Your task to perform on an android device: find which apps use the phone's location Image 0: 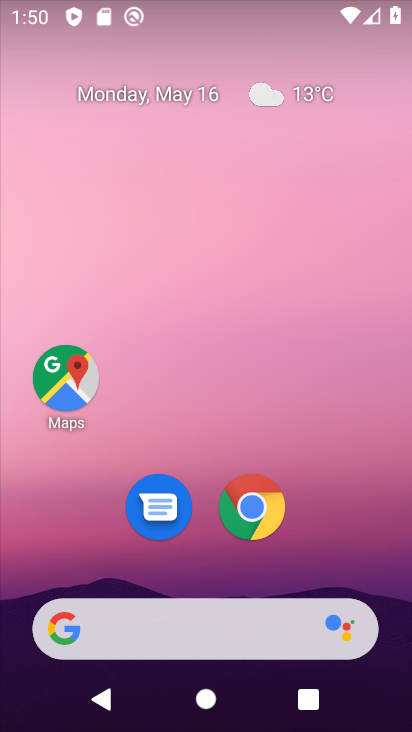
Step 0: drag from (165, 388) to (239, 103)
Your task to perform on an android device: find which apps use the phone's location Image 1: 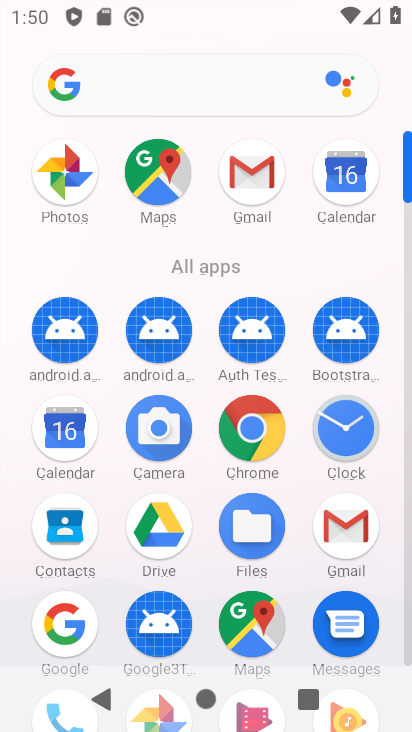
Step 1: drag from (198, 628) to (249, 335)
Your task to perform on an android device: find which apps use the phone's location Image 2: 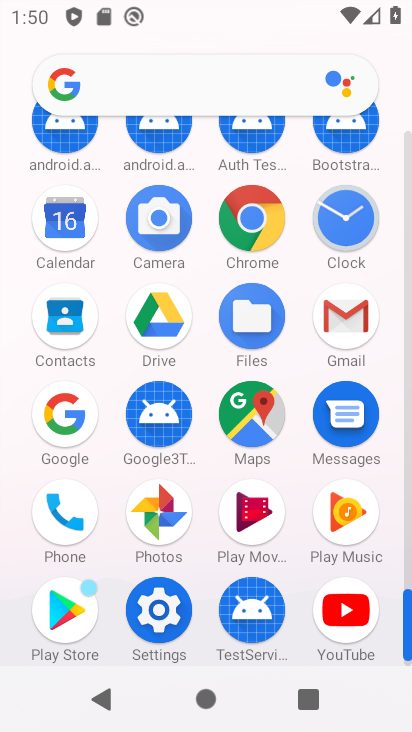
Step 2: click (170, 622)
Your task to perform on an android device: find which apps use the phone's location Image 3: 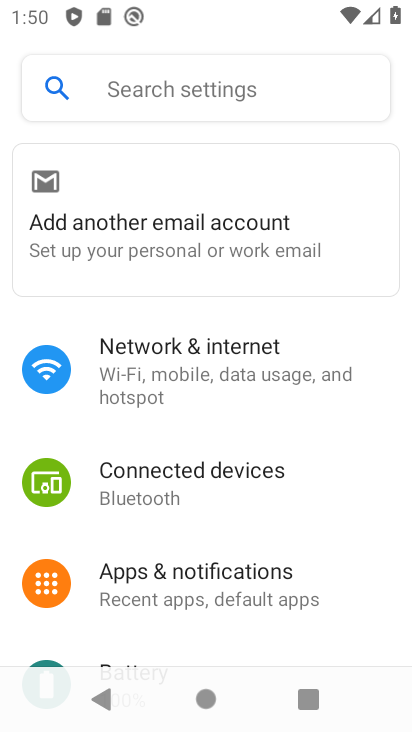
Step 3: drag from (207, 588) to (270, 350)
Your task to perform on an android device: find which apps use the phone's location Image 4: 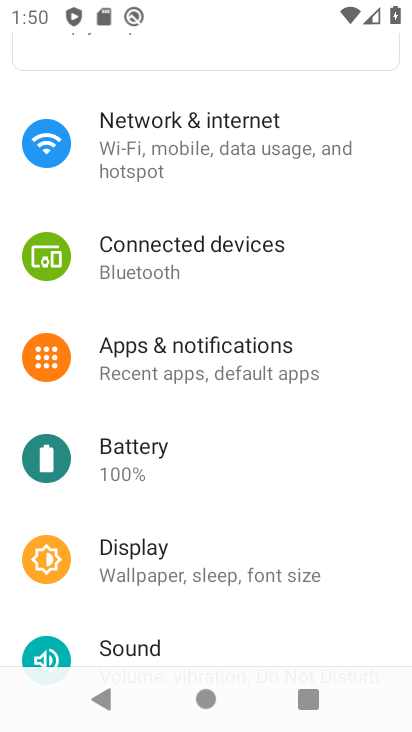
Step 4: drag from (224, 547) to (338, 140)
Your task to perform on an android device: find which apps use the phone's location Image 5: 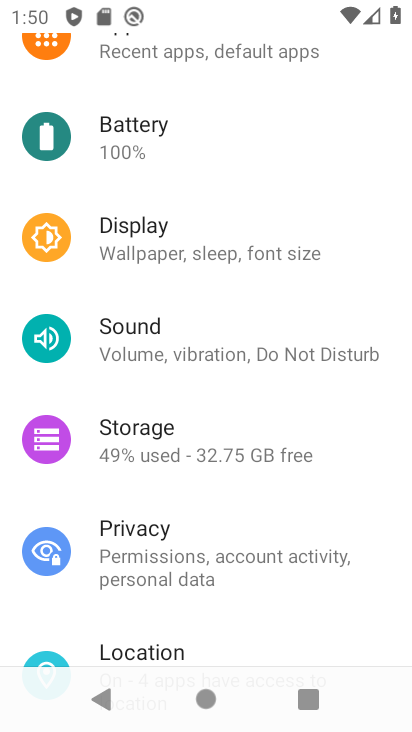
Step 5: drag from (275, 550) to (352, 225)
Your task to perform on an android device: find which apps use the phone's location Image 6: 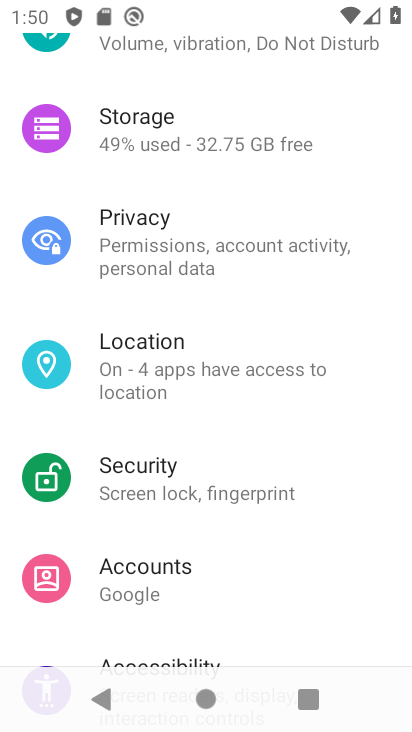
Step 6: click (244, 345)
Your task to perform on an android device: find which apps use the phone's location Image 7: 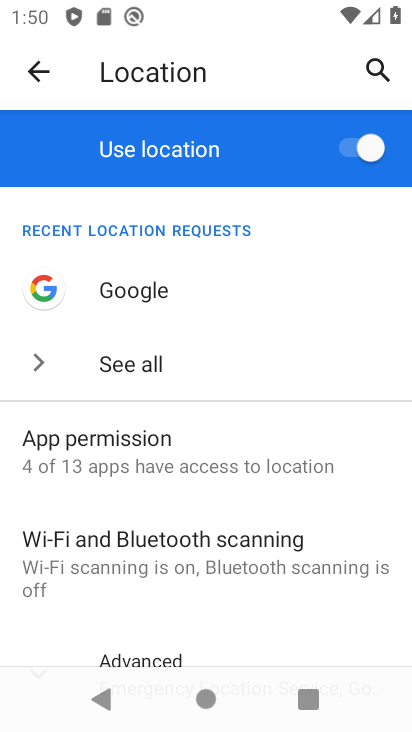
Step 7: click (255, 473)
Your task to perform on an android device: find which apps use the phone's location Image 8: 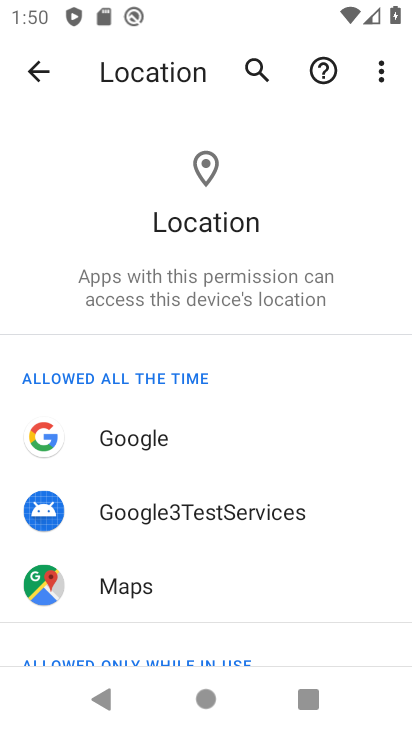
Step 8: task complete